Your task to perform on an android device: turn on airplane mode Image 0: 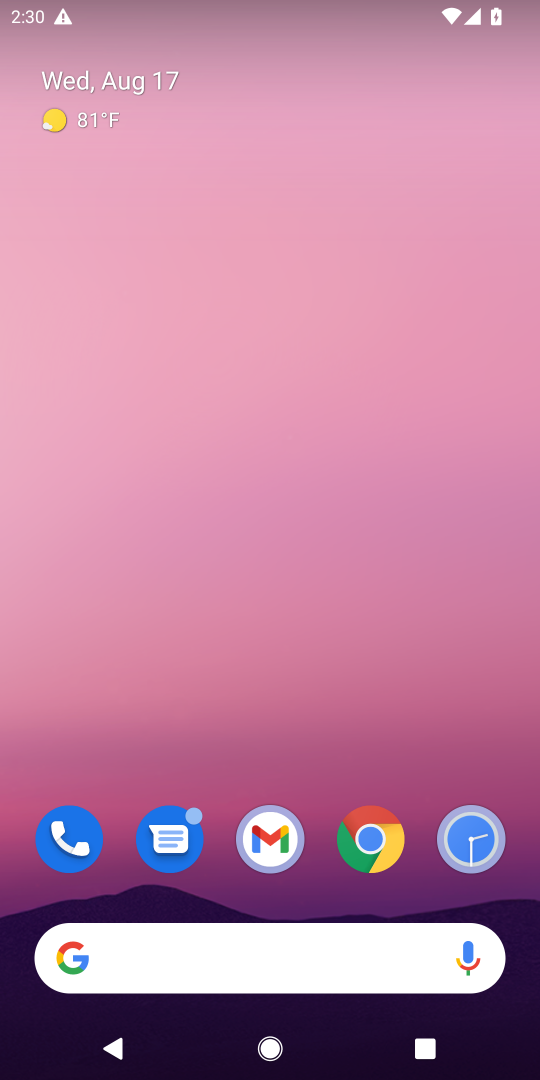
Step 0: drag from (320, 849) to (252, 134)
Your task to perform on an android device: turn on airplane mode Image 1: 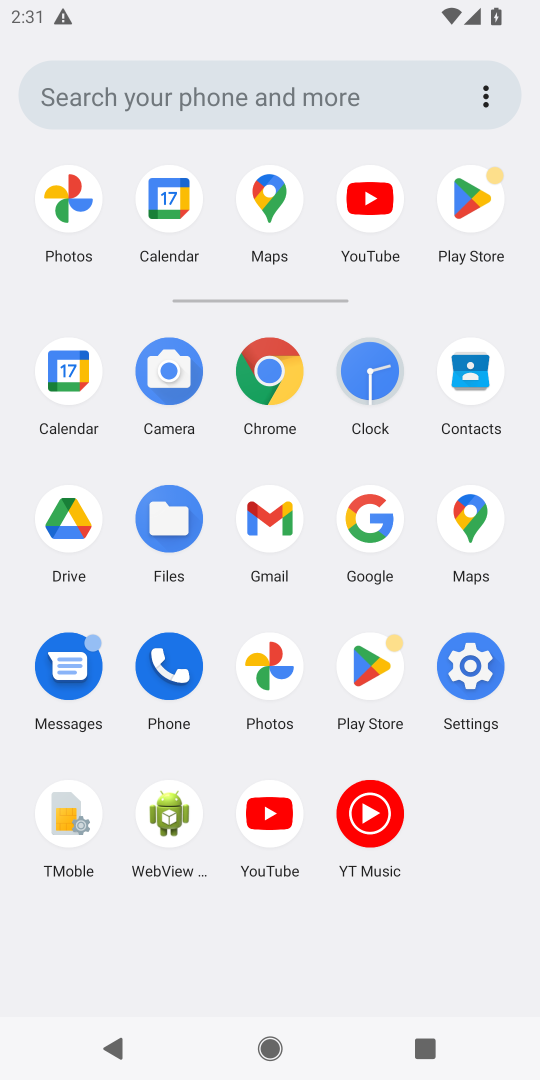
Step 1: click (466, 673)
Your task to perform on an android device: turn on airplane mode Image 2: 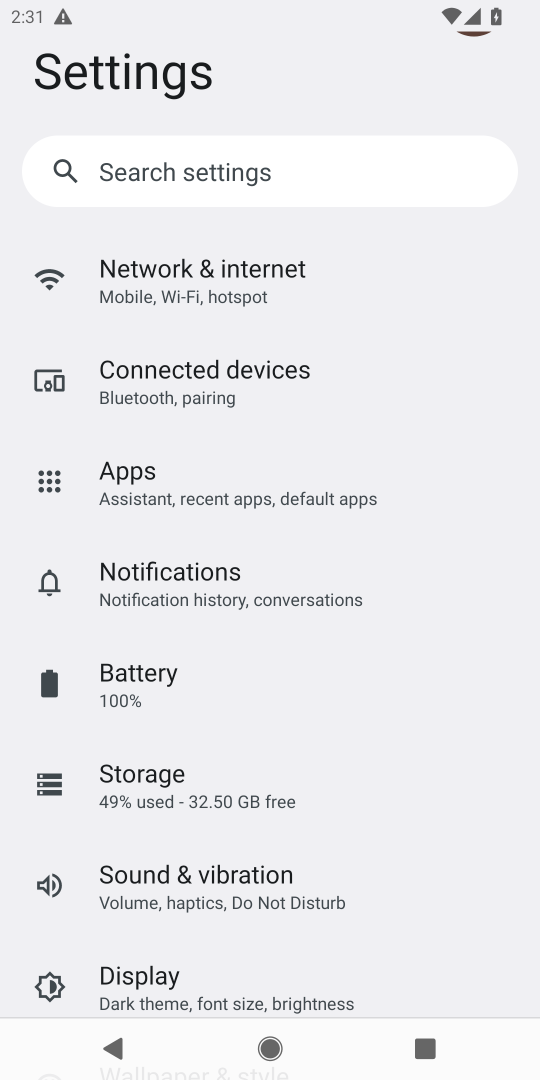
Step 2: click (158, 263)
Your task to perform on an android device: turn on airplane mode Image 3: 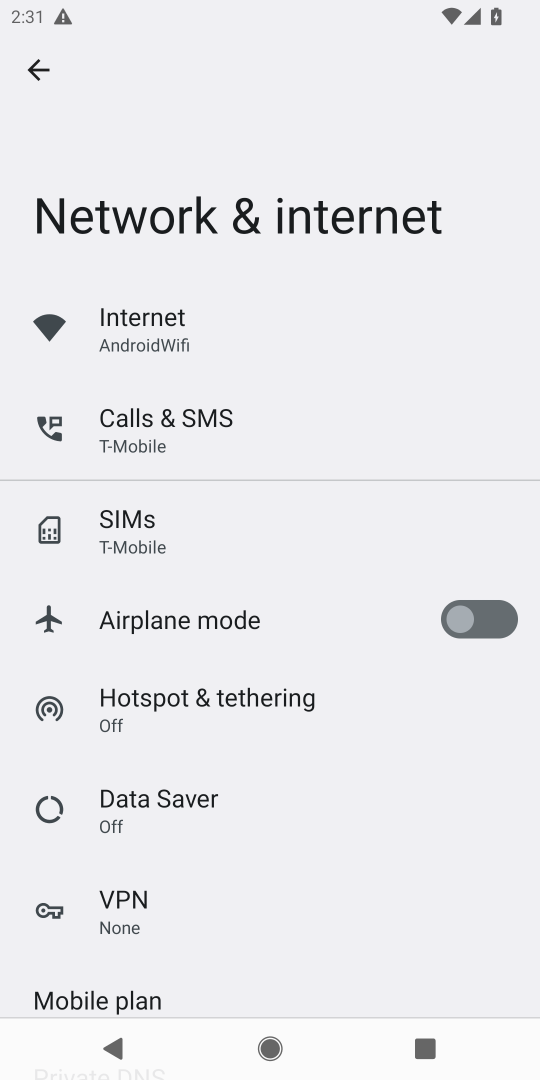
Step 3: click (480, 607)
Your task to perform on an android device: turn on airplane mode Image 4: 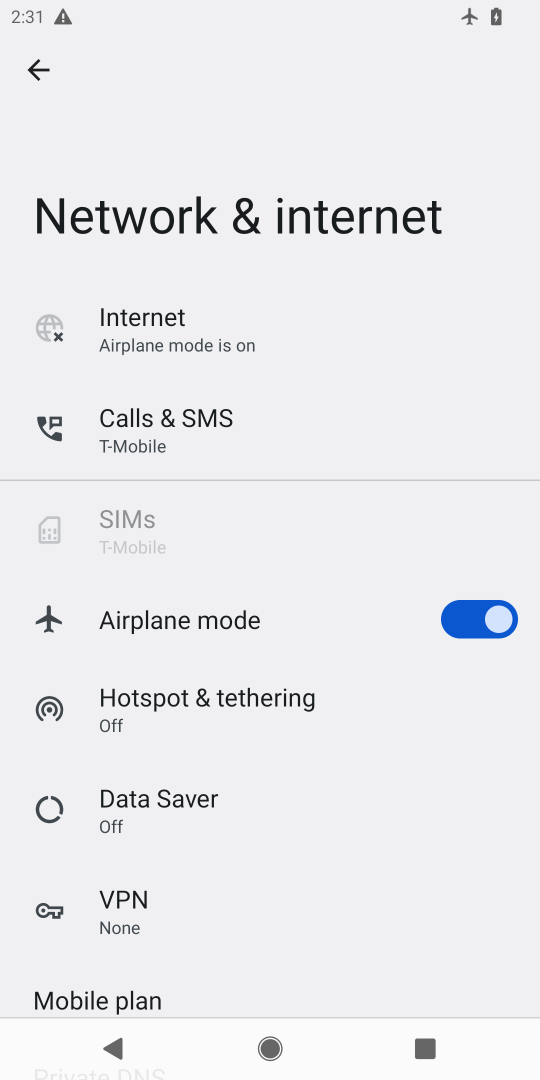
Step 4: task complete